Your task to perform on an android device: Do I have any events this weekend? Image 0: 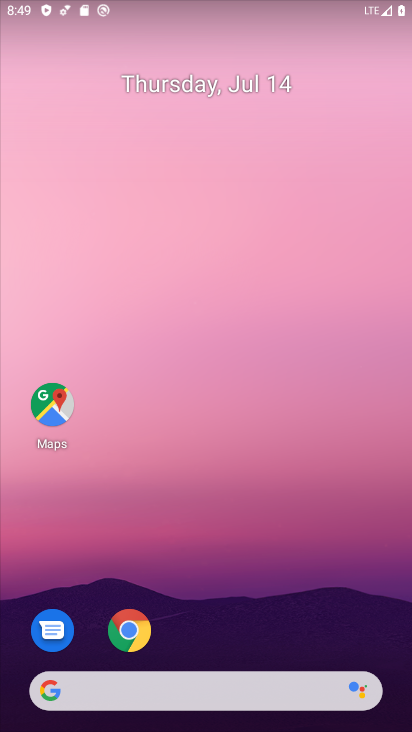
Step 0: drag from (261, 671) to (106, 53)
Your task to perform on an android device: Do I have any events this weekend? Image 1: 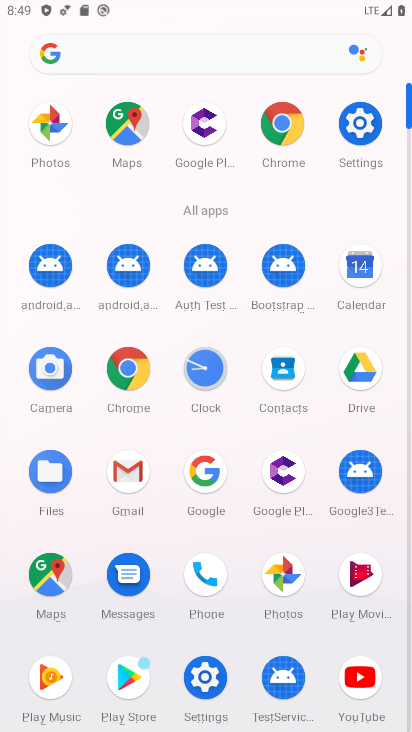
Step 1: click (353, 259)
Your task to perform on an android device: Do I have any events this weekend? Image 2: 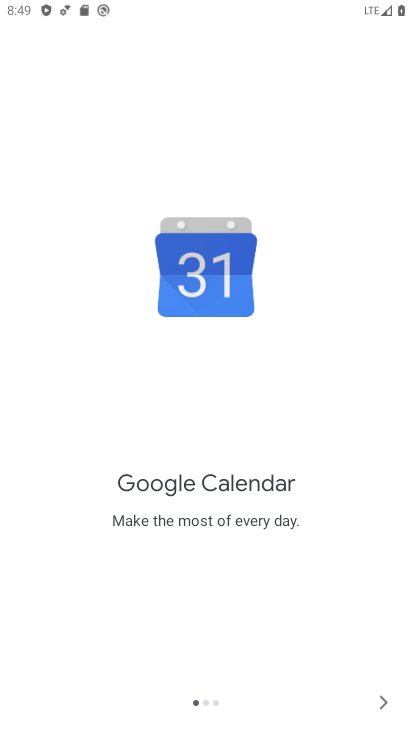
Step 2: click (374, 707)
Your task to perform on an android device: Do I have any events this weekend? Image 3: 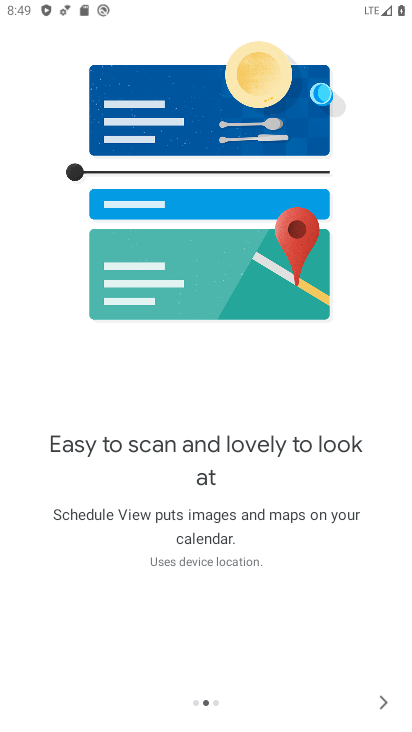
Step 3: click (374, 707)
Your task to perform on an android device: Do I have any events this weekend? Image 4: 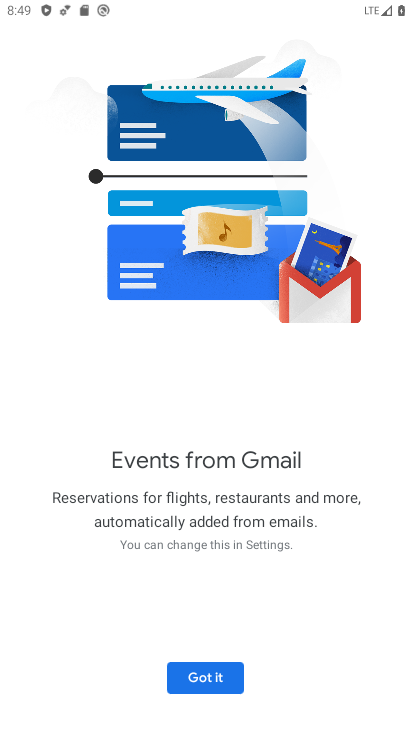
Step 4: click (374, 707)
Your task to perform on an android device: Do I have any events this weekend? Image 5: 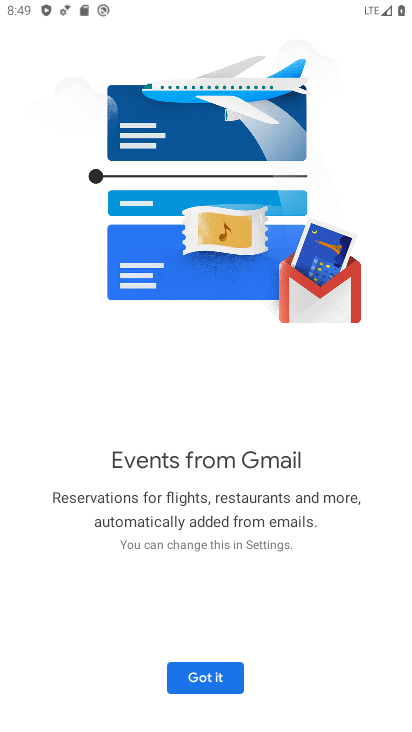
Step 5: click (228, 663)
Your task to perform on an android device: Do I have any events this weekend? Image 6: 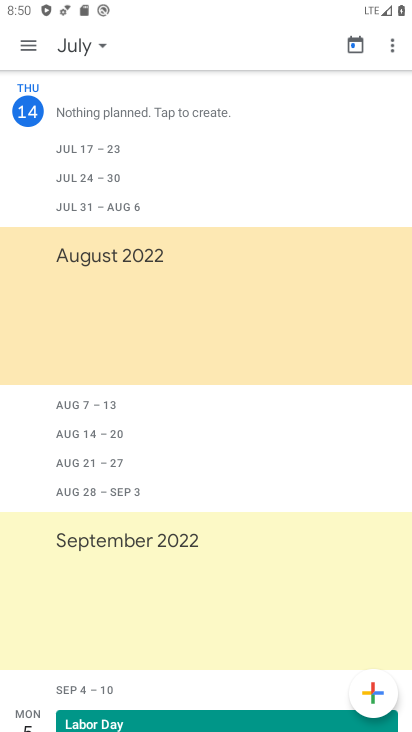
Step 6: click (15, 30)
Your task to perform on an android device: Do I have any events this weekend? Image 7: 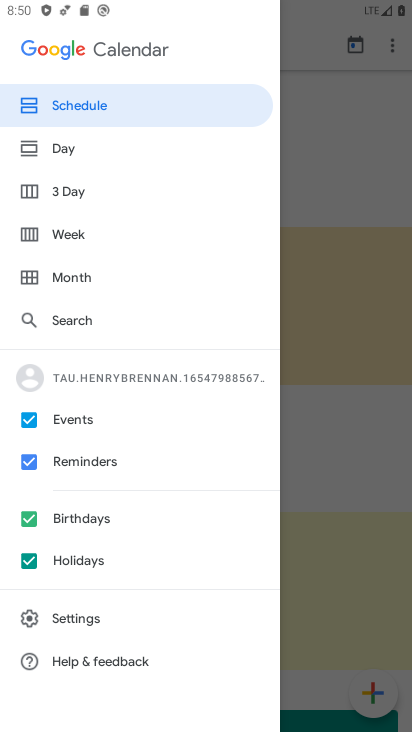
Step 7: click (73, 230)
Your task to perform on an android device: Do I have any events this weekend? Image 8: 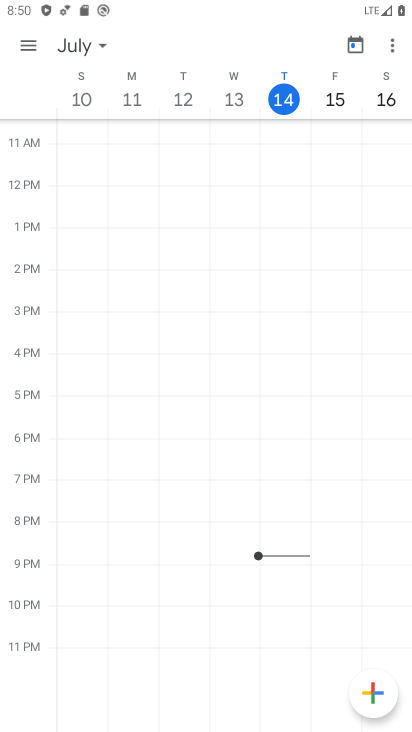
Step 8: task complete